Your task to perform on an android device: Open the calendar app, open the side menu, and click the "Day" option Image 0: 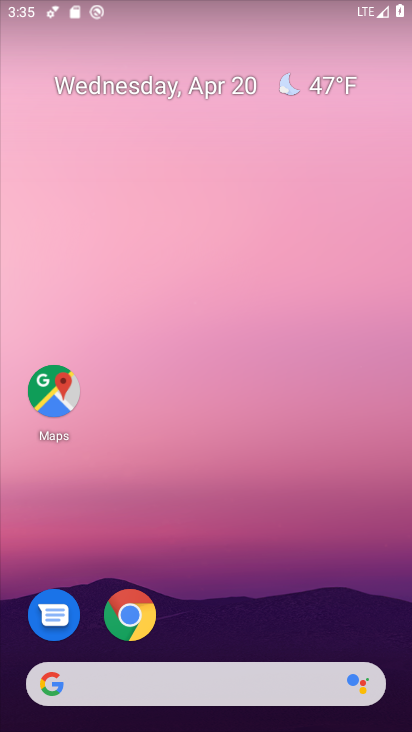
Step 0: drag from (232, 629) to (248, 222)
Your task to perform on an android device: Open the calendar app, open the side menu, and click the "Day" option Image 1: 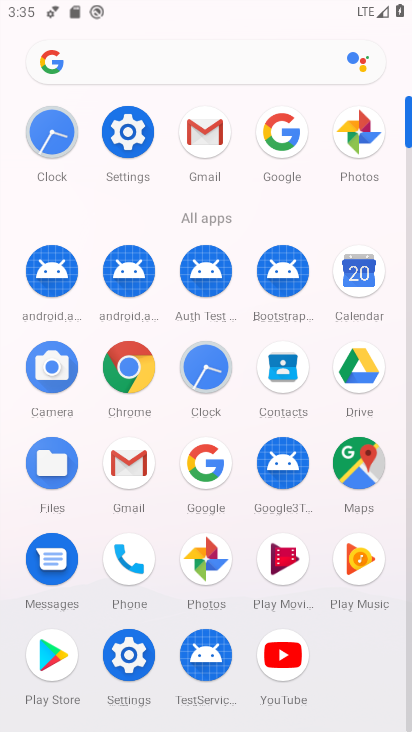
Step 1: click (364, 291)
Your task to perform on an android device: Open the calendar app, open the side menu, and click the "Day" option Image 2: 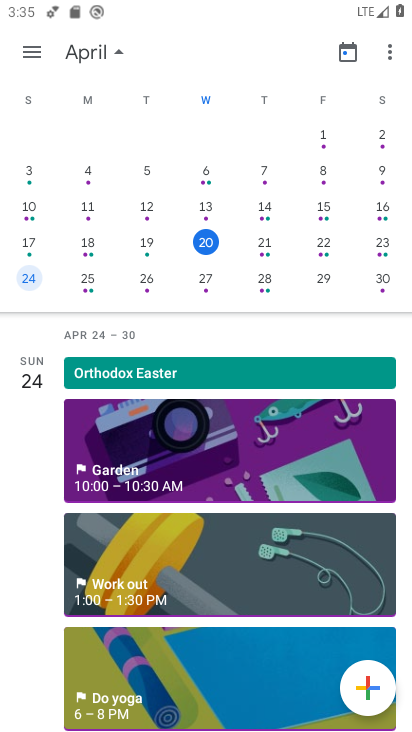
Step 2: click (34, 54)
Your task to perform on an android device: Open the calendar app, open the side menu, and click the "Day" option Image 3: 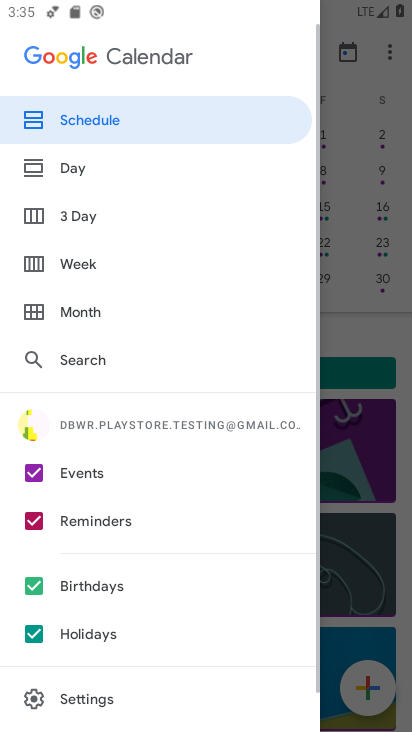
Step 3: click (95, 171)
Your task to perform on an android device: Open the calendar app, open the side menu, and click the "Day" option Image 4: 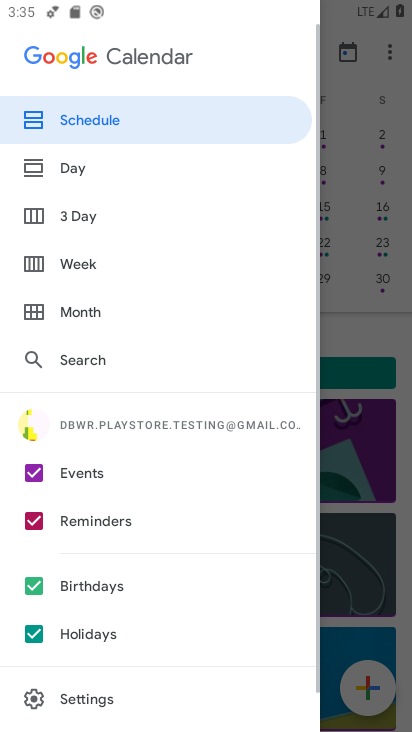
Step 4: click (95, 171)
Your task to perform on an android device: Open the calendar app, open the side menu, and click the "Day" option Image 5: 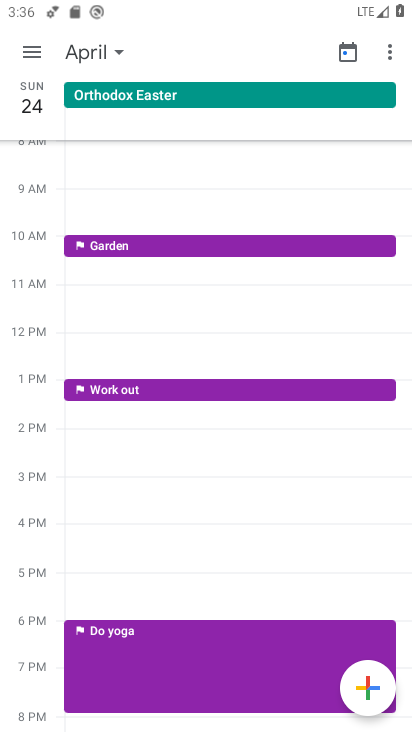
Step 5: task complete